Your task to perform on an android device: Go to location settings Image 0: 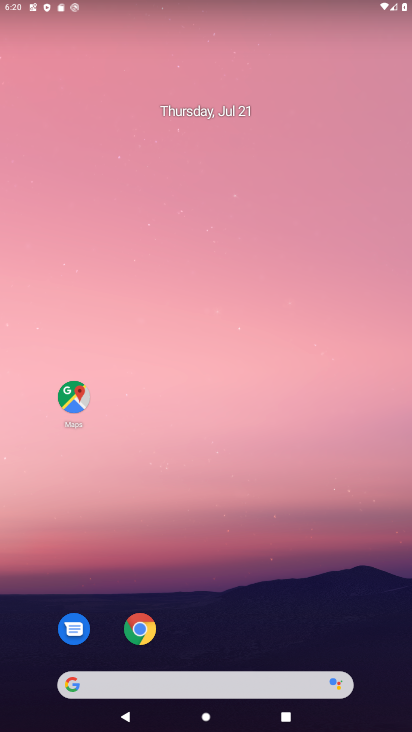
Step 0: drag from (230, 685) to (206, 216)
Your task to perform on an android device: Go to location settings Image 1: 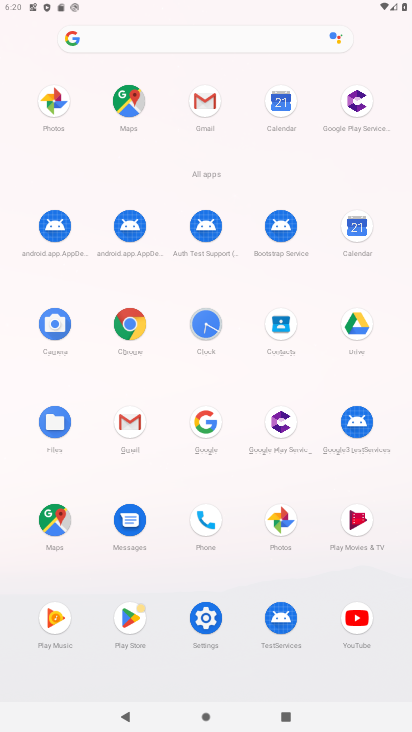
Step 1: click (207, 618)
Your task to perform on an android device: Go to location settings Image 2: 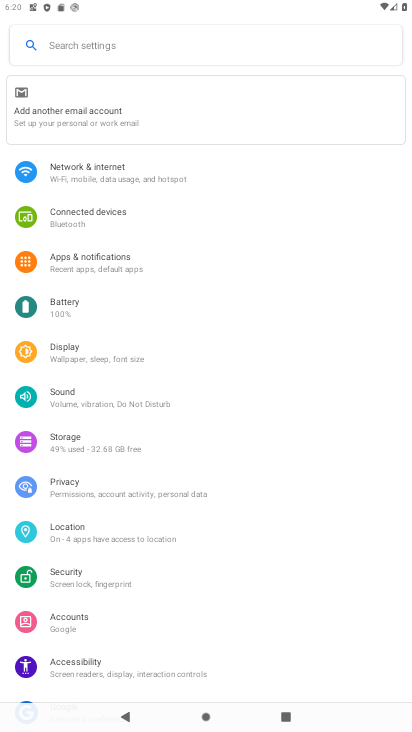
Step 2: click (76, 528)
Your task to perform on an android device: Go to location settings Image 3: 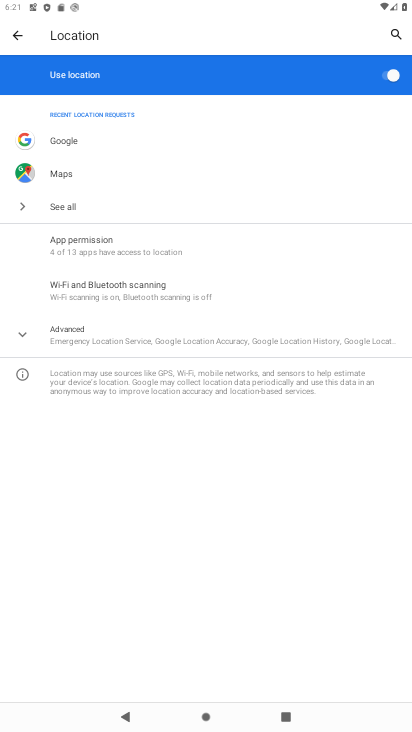
Step 3: task complete